Your task to perform on an android device: toggle airplane mode Image 0: 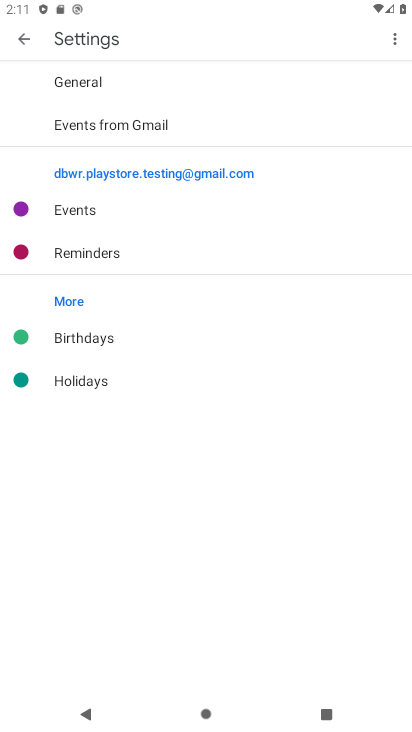
Step 0: press home button
Your task to perform on an android device: toggle airplane mode Image 1: 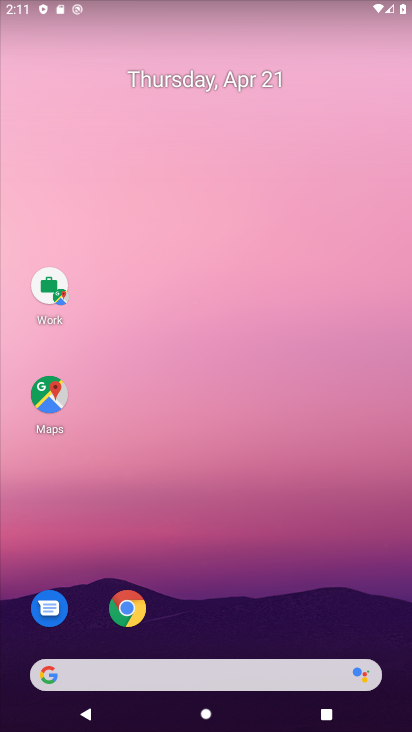
Step 1: drag from (178, 236) to (167, 194)
Your task to perform on an android device: toggle airplane mode Image 2: 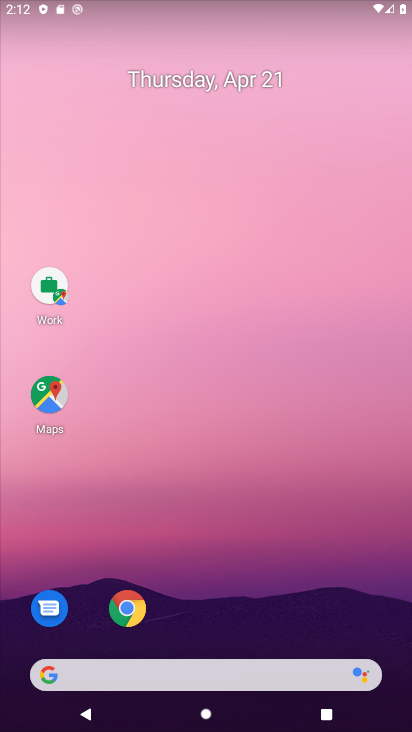
Step 2: drag from (244, 603) to (189, 245)
Your task to perform on an android device: toggle airplane mode Image 3: 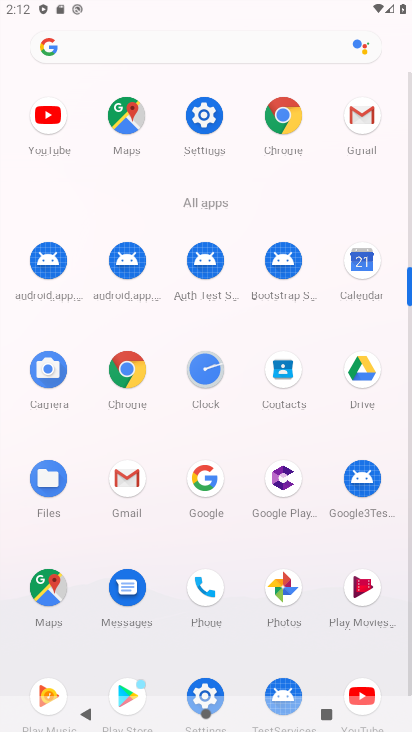
Step 3: drag from (268, 418) to (272, 343)
Your task to perform on an android device: toggle airplane mode Image 4: 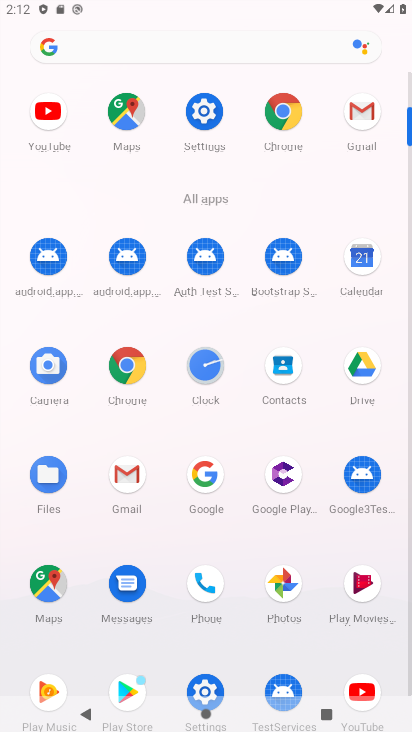
Step 4: drag from (243, 361) to (248, 311)
Your task to perform on an android device: toggle airplane mode Image 5: 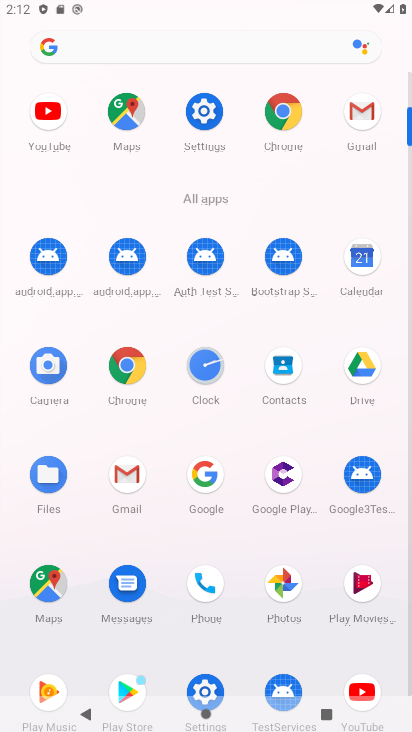
Step 5: drag from (243, 465) to (233, 275)
Your task to perform on an android device: toggle airplane mode Image 6: 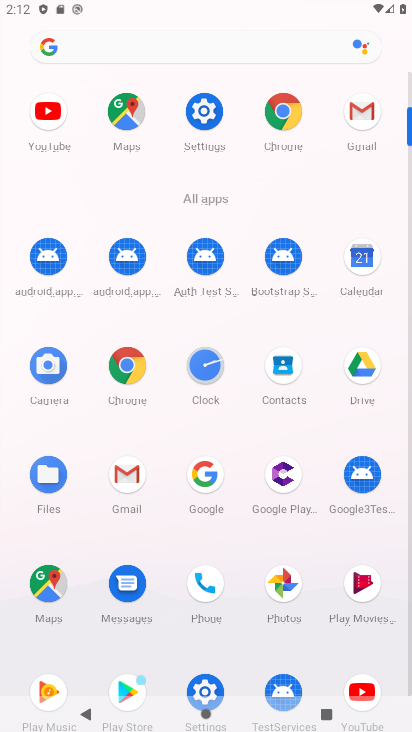
Step 6: drag from (255, 560) to (264, 251)
Your task to perform on an android device: toggle airplane mode Image 7: 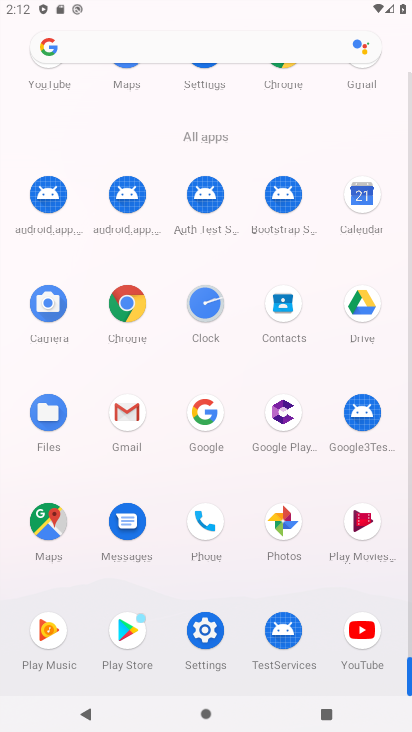
Step 7: drag from (234, 553) to (260, 346)
Your task to perform on an android device: toggle airplane mode Image 8: 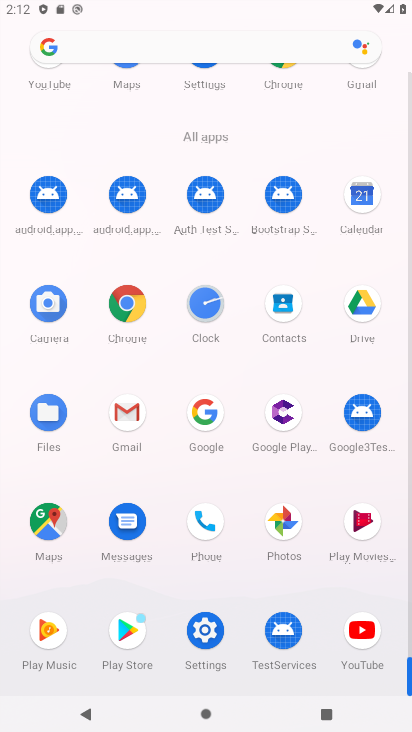
Step 8: click (203, 648)
Your task to perform on an android device: toggle airplane mode Image 9: 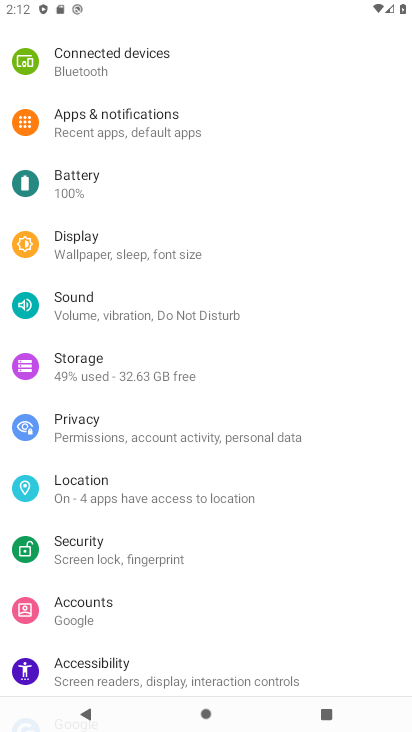
Step 9: drag from (170, 411) to (176, 529)
Your task to perform on an android device: toggle airplane mode Image 10: 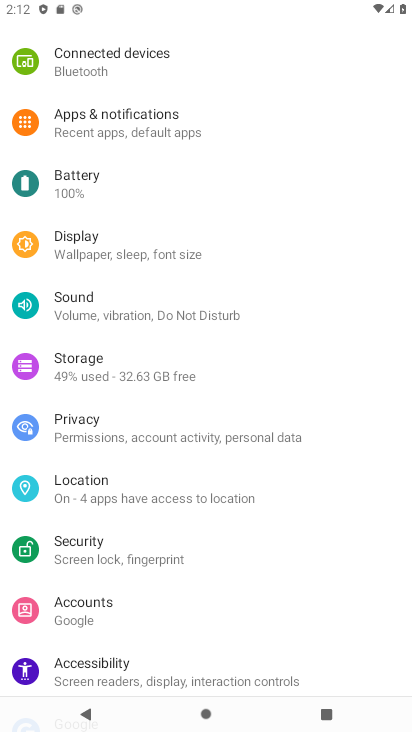
Step 10: drag from (211, 162) to (226, 597)
Your task to perform on an android device: toggle airplane mode Image 11: 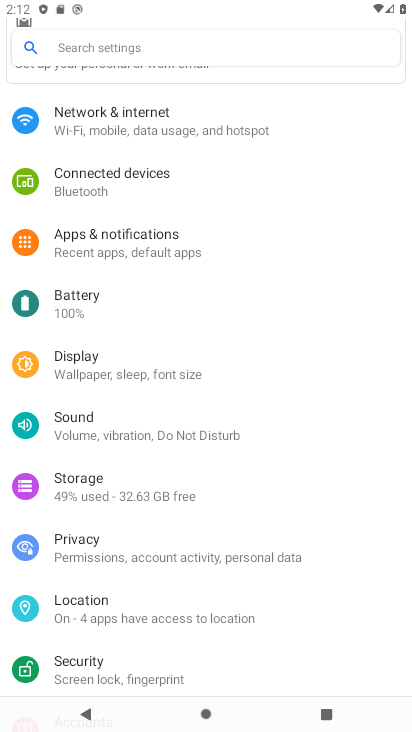
Step 11: click (158, 116)
Your task to perform on an android device: toggle airplane mode Image 12: 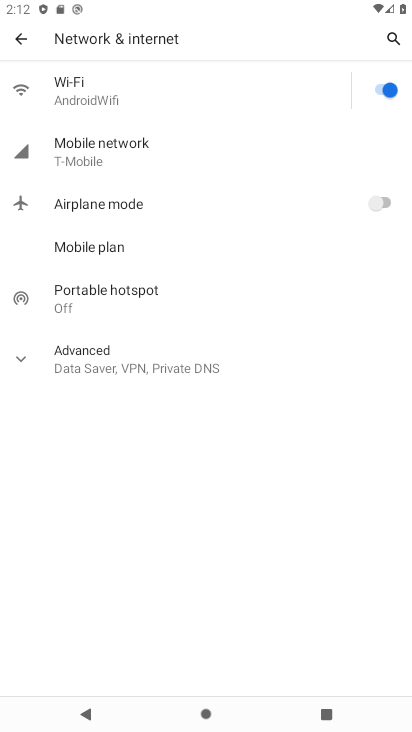
Step 12: click (390, 206)
Your task to perform on an android device: toggle airplane mode Image 13: 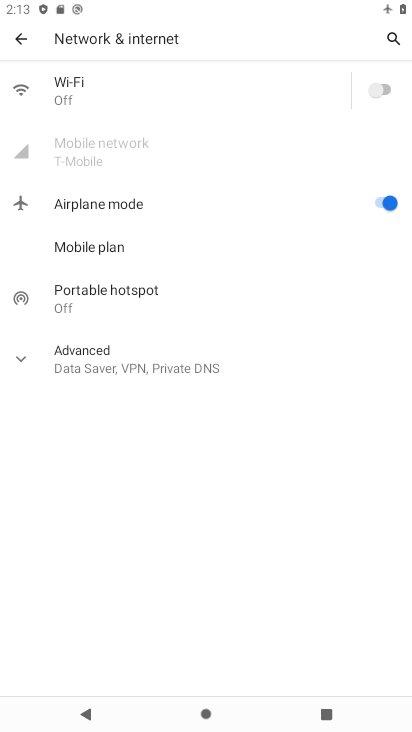
Step 13: task complete